Your task to perform on an android device: Go to Amazon Image 0: 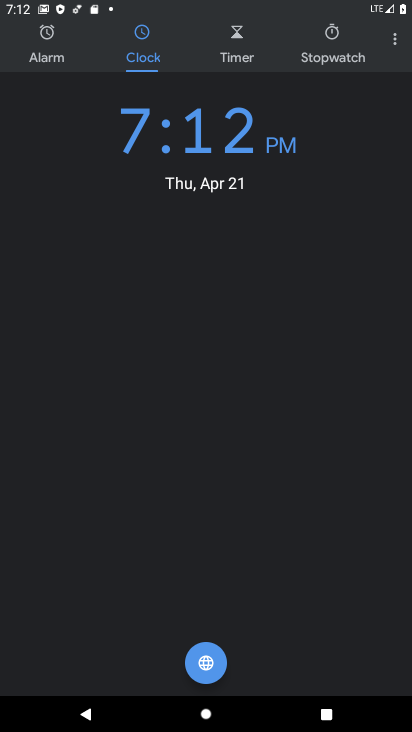
Step 0: press home button
Your task to perform on an android device: Go to Amazon Image 1: 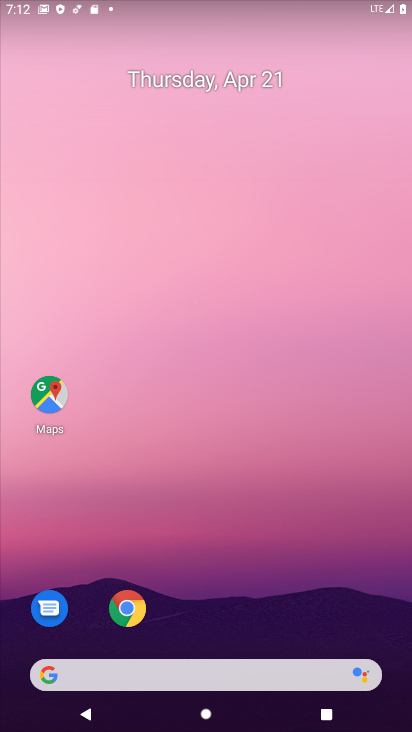
Step 1: drag from (221, 610) to (235, 129)
Your task to perform on an android device: Go to Amazon Image 2: 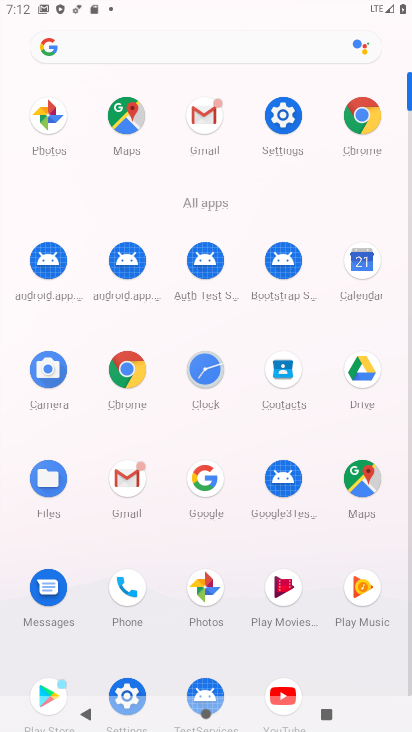
Step 2: click (155, 602)
Your task to perform on an android device: Go to Amazon Image 3: 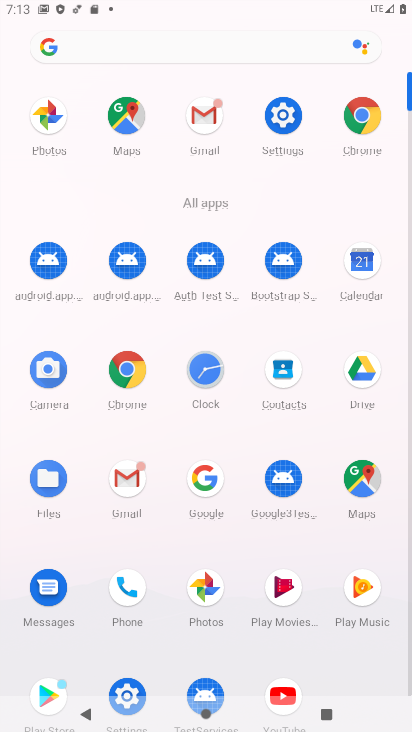
Step 3: click (353, 126)
Your task to perform on an android device: Go to Amazon Image 4: 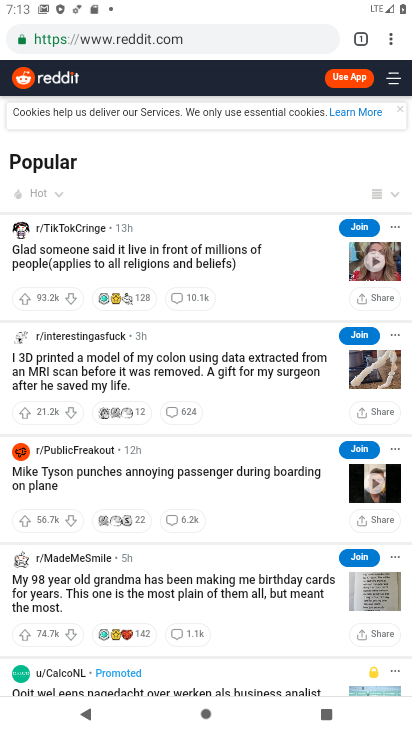
Step 4: click (267, 34)
Your task to perform on an android device: Go to Amazon Image 5: 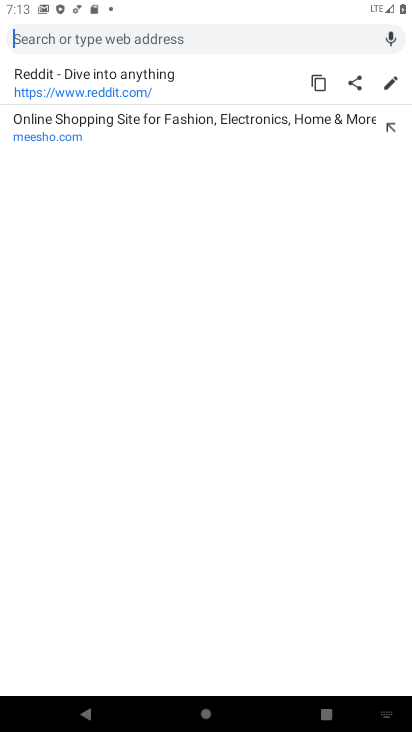
Step 5: type "amazon"
Your task to perform on an android device: Go to Amazon Image 6: 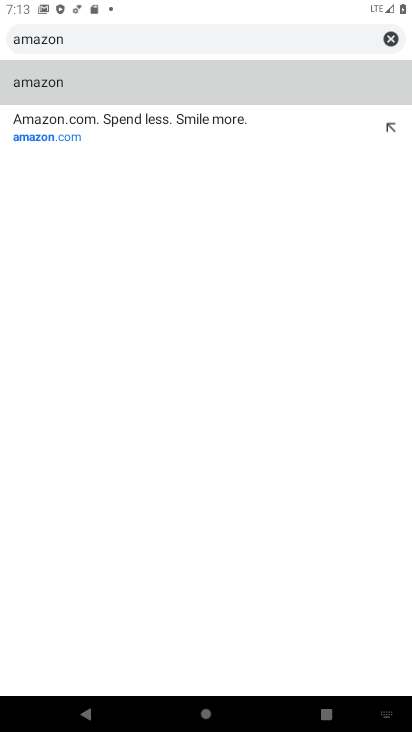
Step 6: click (44, 130)
Your task to perform on an android device: Go to Amazon Image 7: 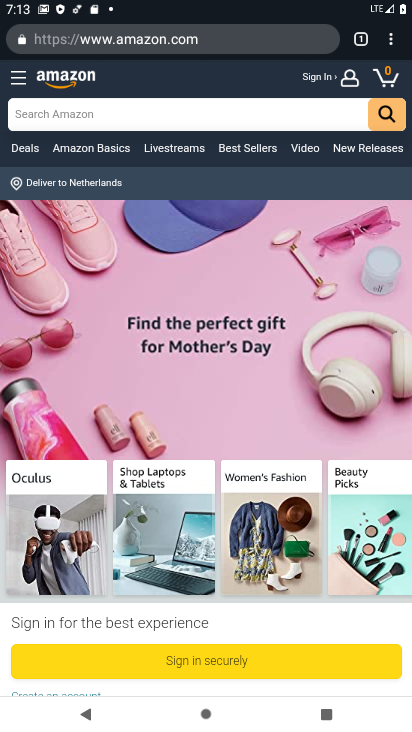
Step 7: task complete